Your task to perform on an android device: Check the news Image 0: 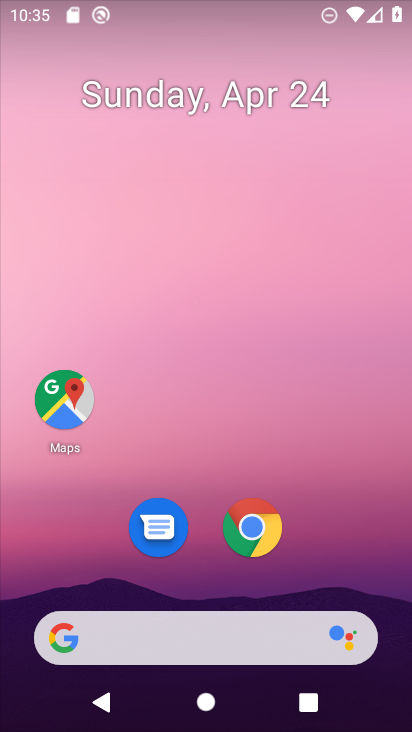
Step 0: press home button
Your task to perform on an android device: Check the news Image 1: 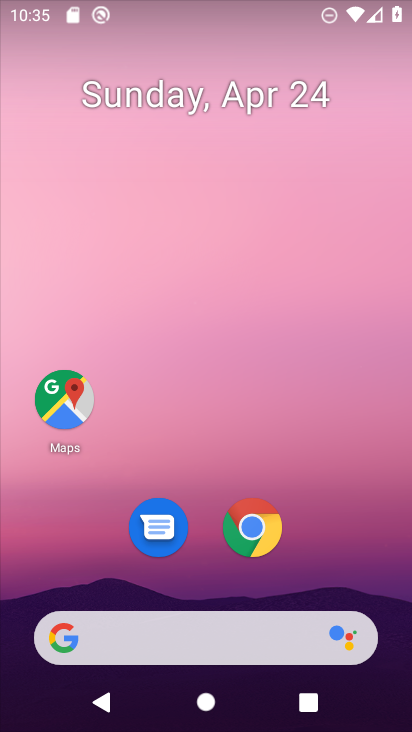
Step 1: drag from (385, 623) to (294, 89)
Your task to perform on an android device: Check the news Image 2: 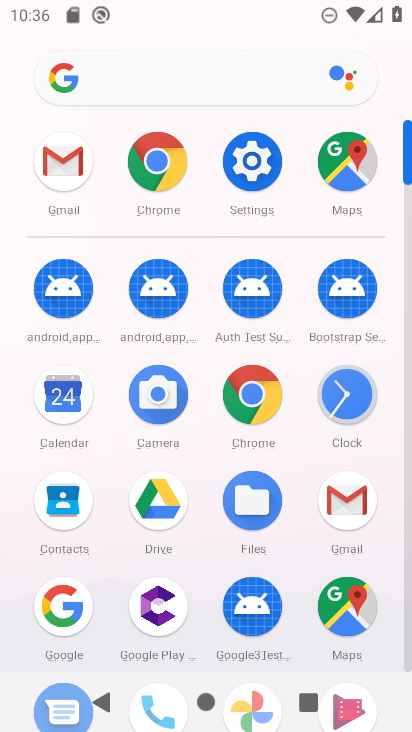
Step 2: click (253, 410)
Your task to perform on an android device: Check the news Image 3: 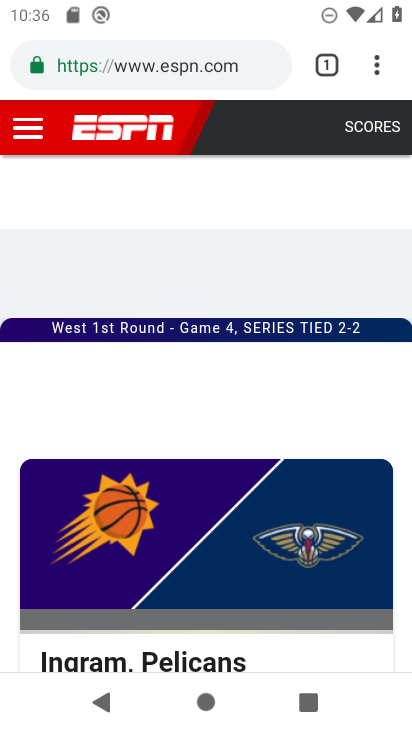
Step 3: press back button
Your task to perform on an android device: Check the news Image 4: 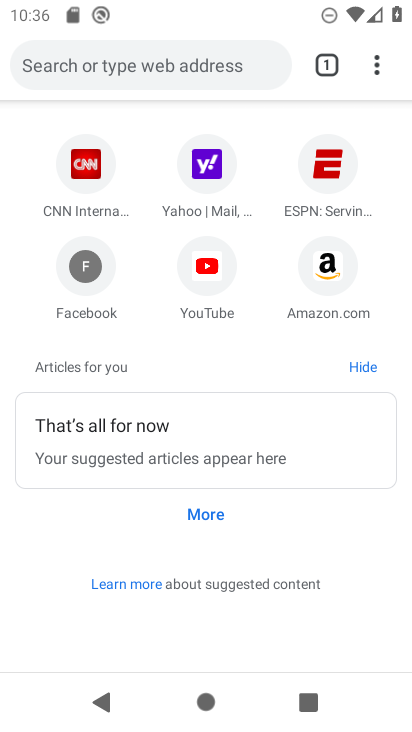
Step 4: click (189, 515)
Your task to perform on an android device: Check the news Image 5: 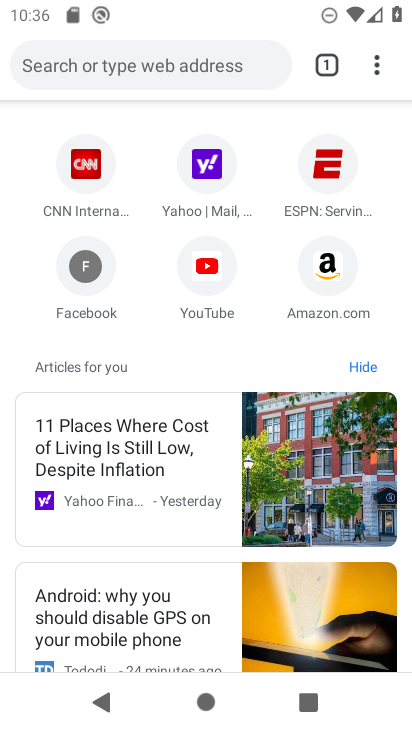
Step 5: click (189, 522)
Your task to perform on an android device: Check the news Image 6: 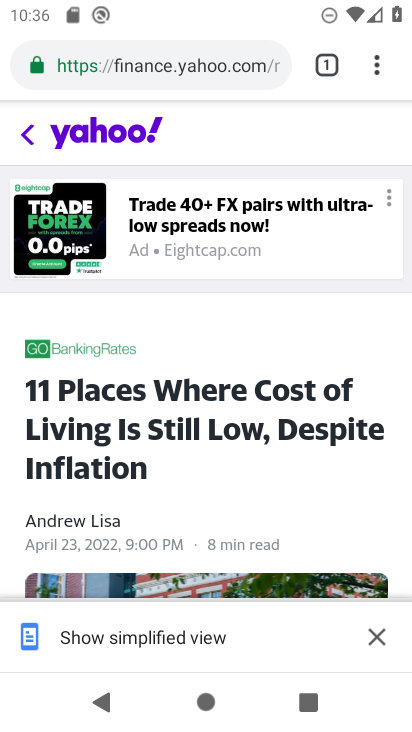
Step 6: task complete